Your task to perform on an android device: refresh tabs in the chrome app Image 0: 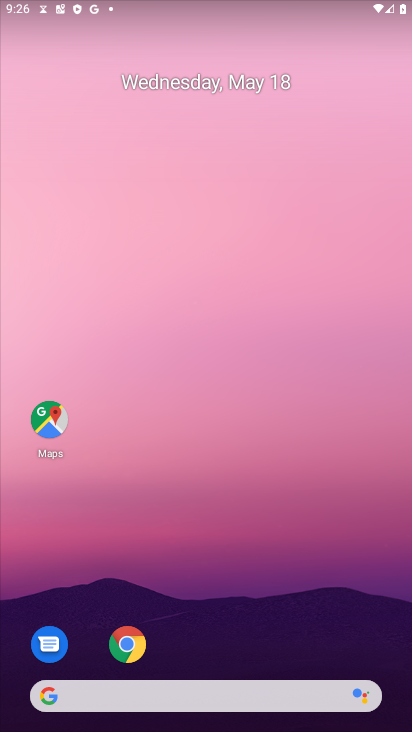
Step 0: click (128, 643)
Your task to perform on an android device: refresh tabs in the chrome app Image 1: 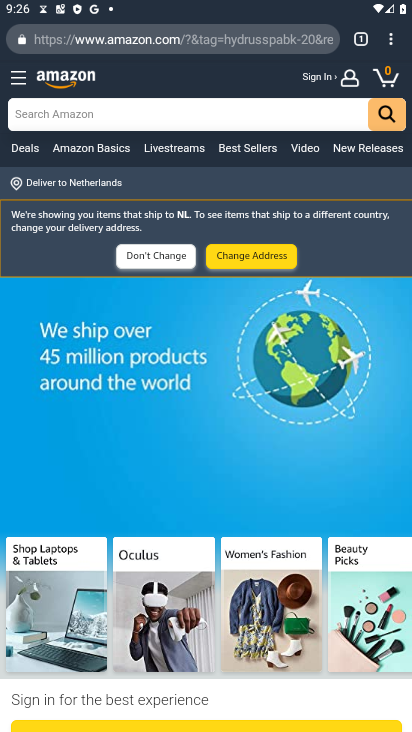
Step 1: click (392, 41)
Your task to perform on an android device: refresh tabs in the chrome app Image 2: 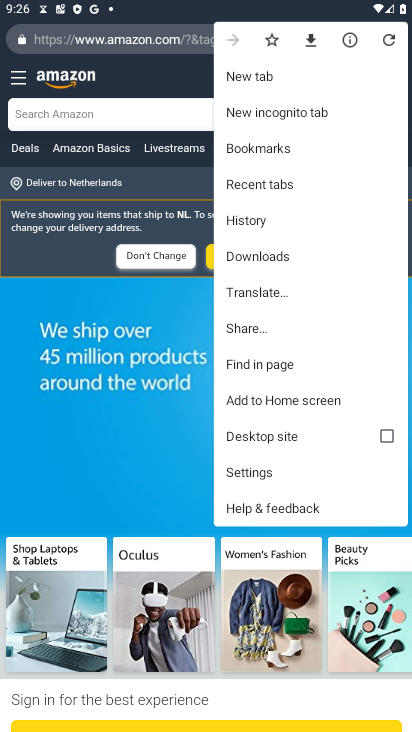
Step 2: click (392, 41)
Your task to perform on an android device: refresh tabs in the chrome app Image 3: 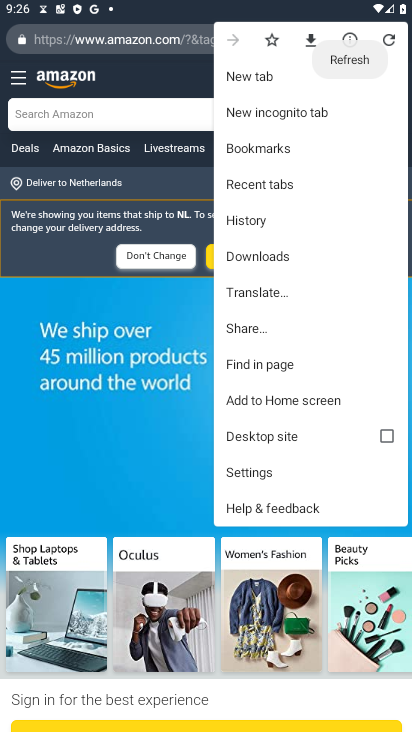
Step 3: click (392, 41)
Your task to perform on an android device: refresh tabs in the chrome app Image 4: 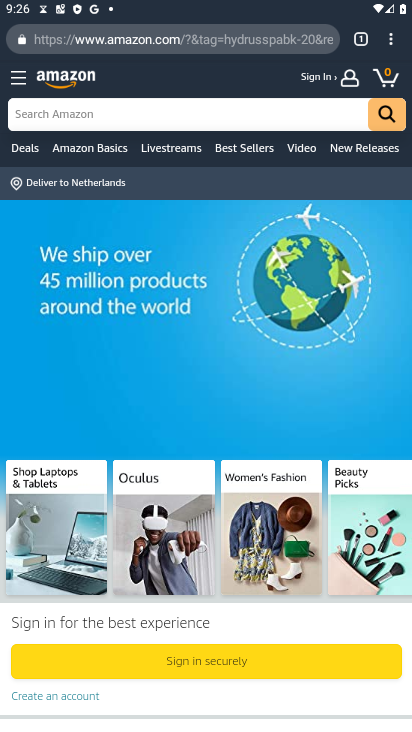
Step 4: task complete